Your task to perform on an android device: Go to location settings Image 0: 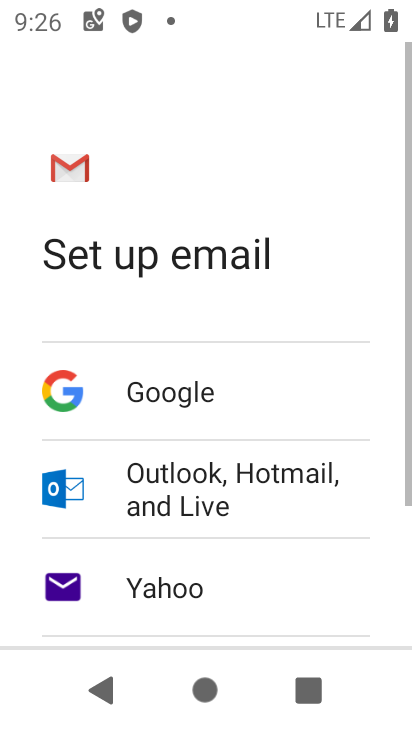
Step 0: press home button
Your task to perform on an android device: Go to location settings Image 1: 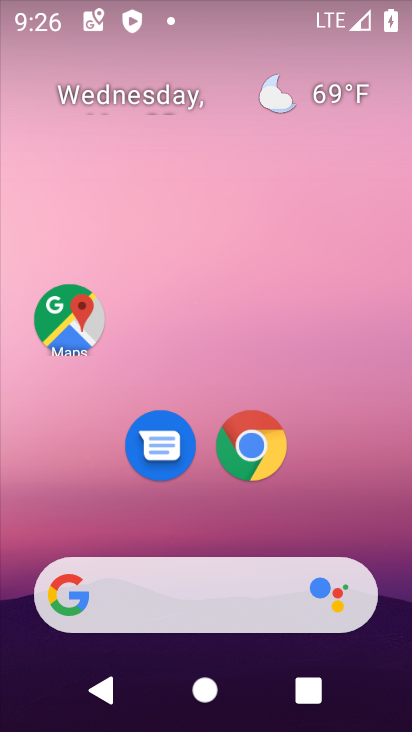
Step 1: drag from (267, 520) to (320, 63)
Your task to perform on an android device: Go to location settings Image 2: 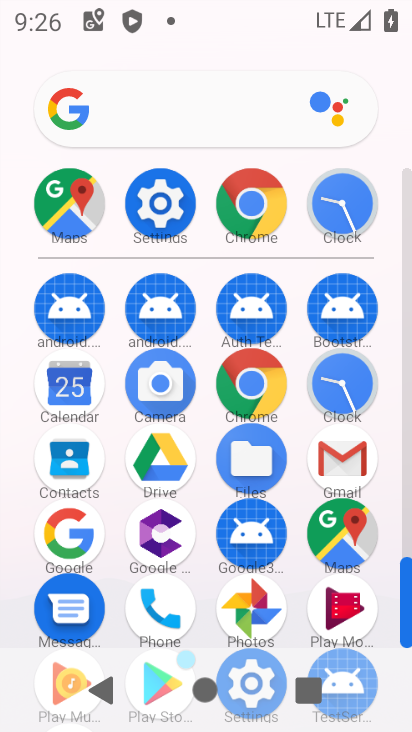
Step 2: click (156, 203)
Your task to perform on an android device: Go to location settings Image 3: 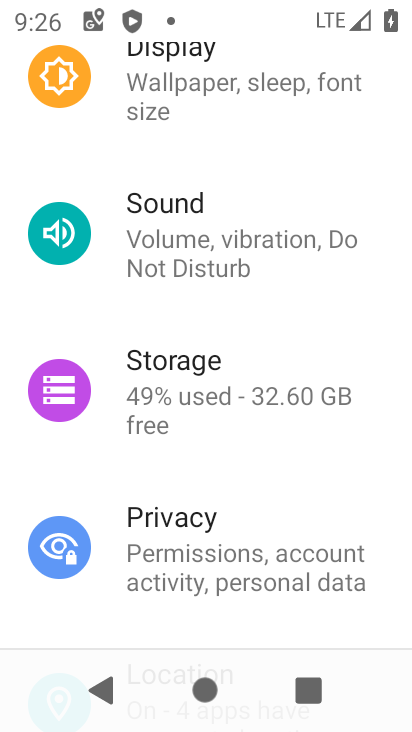
Step 3: drag from (335, 597) to (375, 178)
Your task to perform on an android device: Go to location settings Image 4: 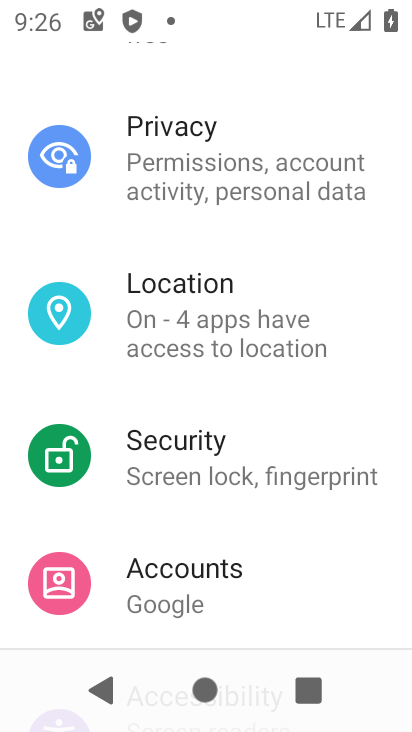
Step 4: drag from (287, 577) to (311, 167)
Your task to perform on an android device: Go to location settings Image 5: 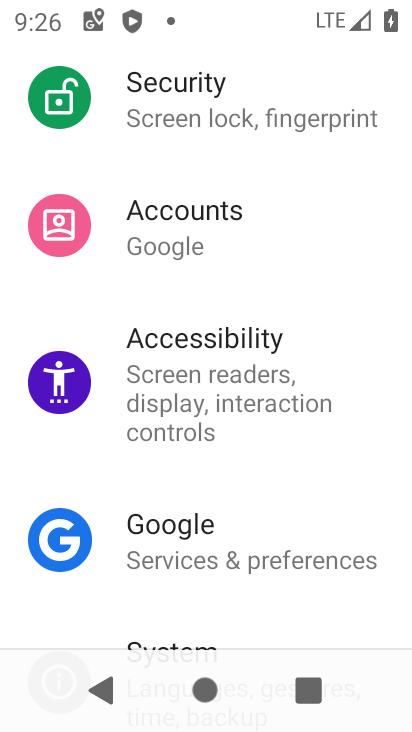
Step 5: drag from (275, 596) to (325, 234)
Your task to perform on an android device: Go to location settings Image 6: 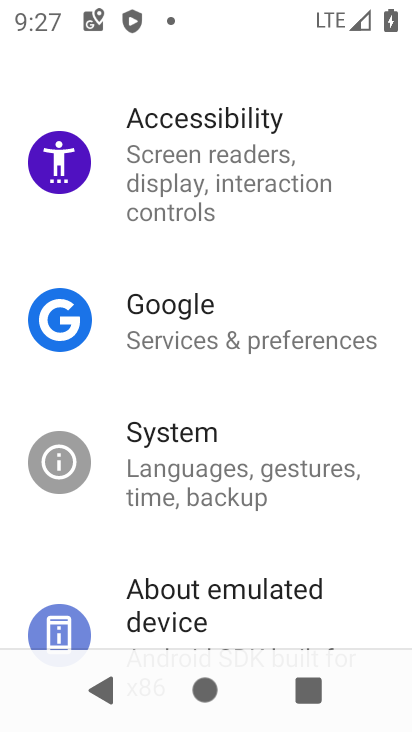
Step 6: drag from (249, 531) to (329, 121)
Your task to perform on an android device: Go to location settings Image 7: 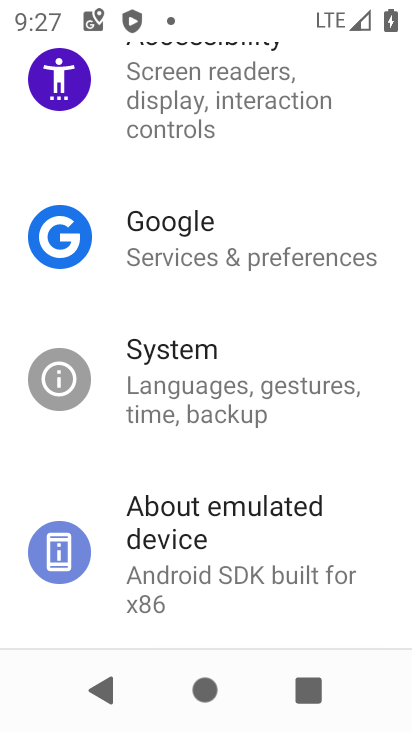
Step 7: drag from (335, 104) to (296, 515)
Your task to perform on an android device: Go to location settings Image 8: 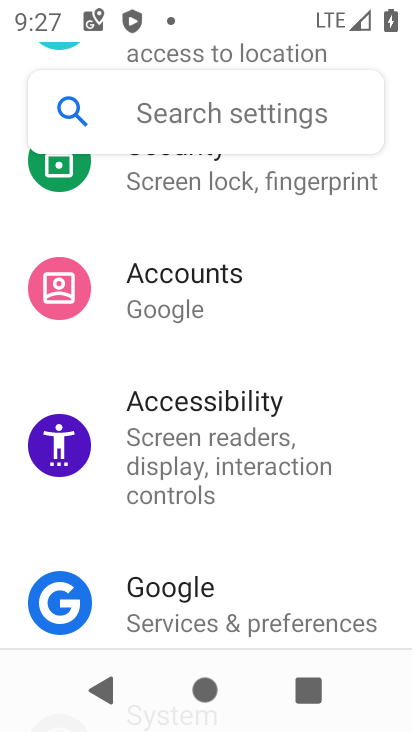
Step 8: drag from (365, 202) to (322, 569)
Your task to perform on an android device: Go to location settings Image 9: 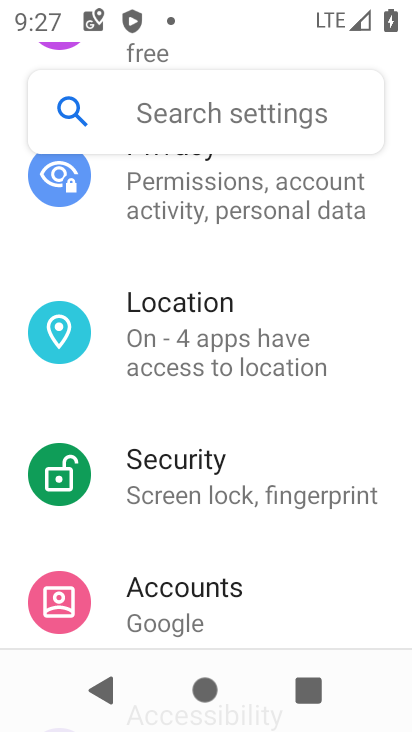
Step 9: click (207, 344)
Your task to perform on an android device: Go to location settings Image 10: 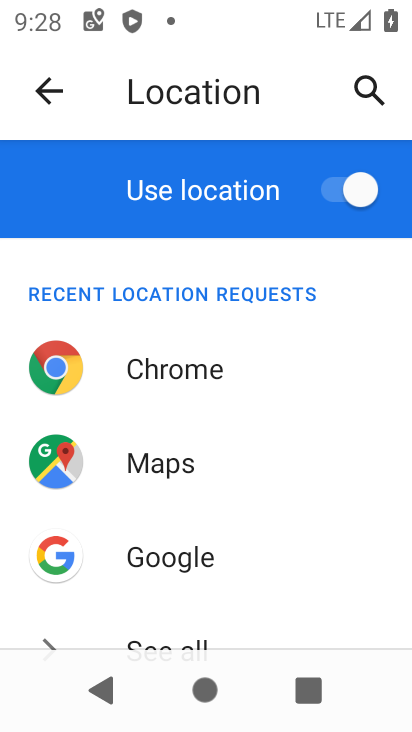
Step 10: task complete